Your task to perform on an android device: open the mobile data screen to see how much data has been used Image 0: 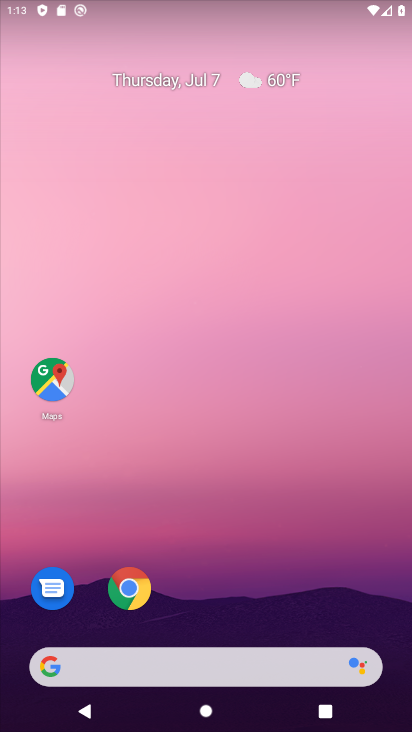
Step 0: drag from (241, 625) to (273, 116)
Your task to perform on an android device: open the mobile data screen to see how much data has been used Image 1: 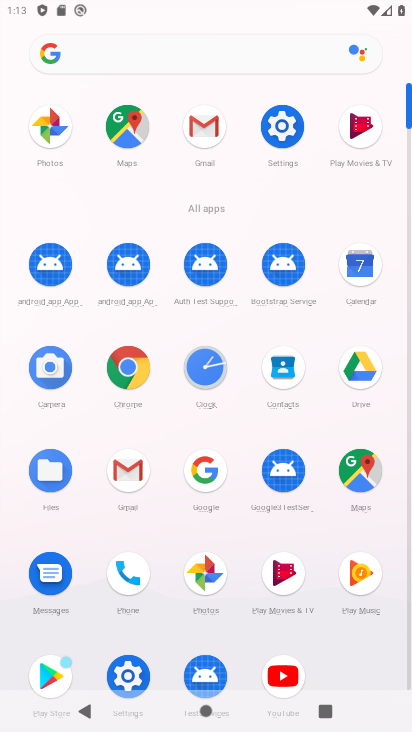
Step 1: click (126, 657)
Your task to perform on an android device: open the mobile data screen to see how much data has been used Image 2: 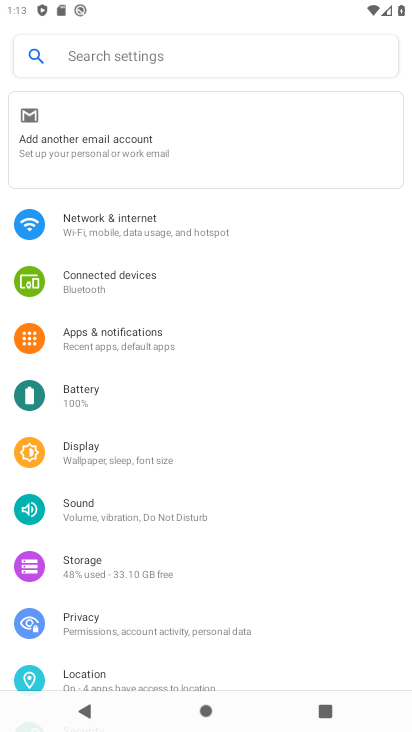
Step 2: drag from (124, 287) to (98, 609)
Your task to perform on an android device: open the mobile data screen to see how much data has been used Image 3: 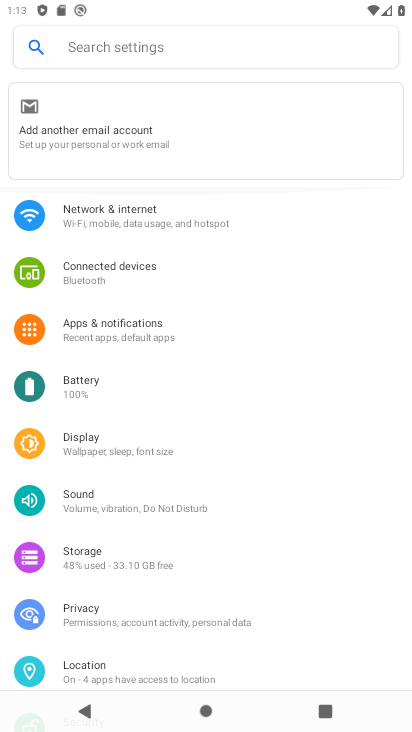
Step 3: click (161, 235)
Your task to perform on an android device: open the mobile data screen to see how much data has been used Image 4: 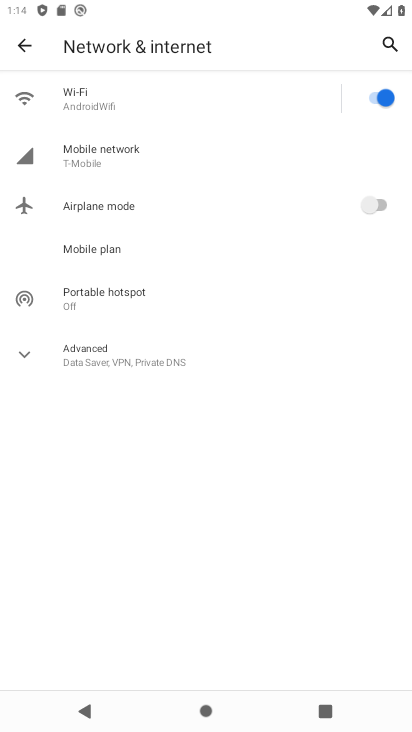
Step 4: click (168, 154)
Your task to perform on an android device: open the mobile data screen to see how much data has been used Image 5: 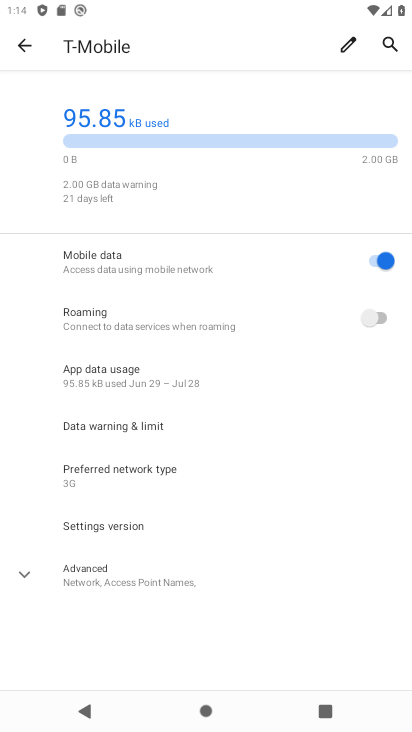
Step 5: task complete